Your task to perform on an android device: Open Google Chrome and open the bookmarks view Image 0: 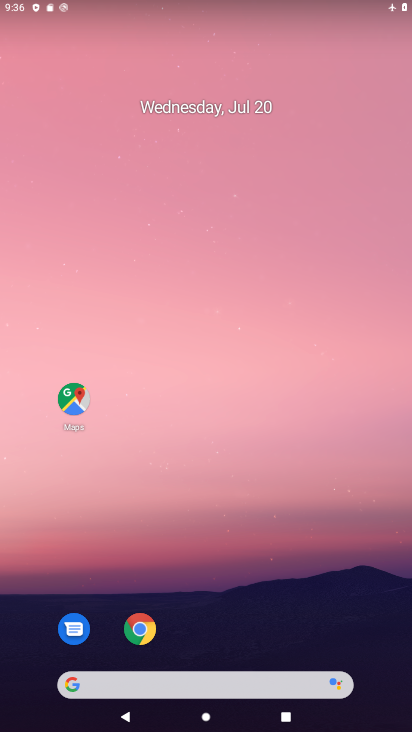
Step 0: drag from (340, 420) to (321, 95)
Your task to perform on an android device: Open Google Chrome and open the bookmarks view Image 1: 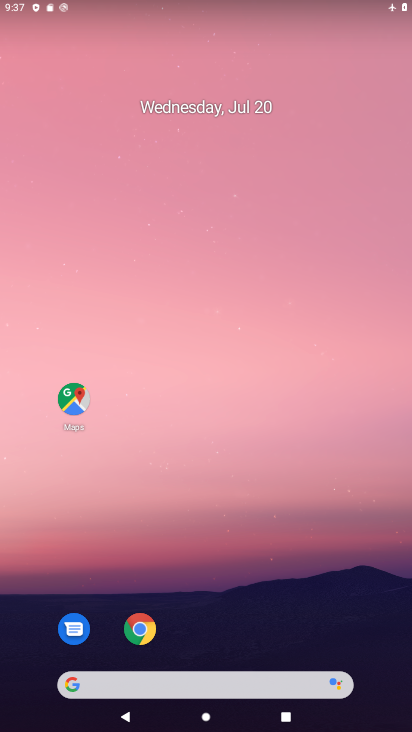
Step 1: drag from (276, 532) to (238, 6)
Your task to perform on an android device: Open Google Chrome and open the bookmarks view Image 2: 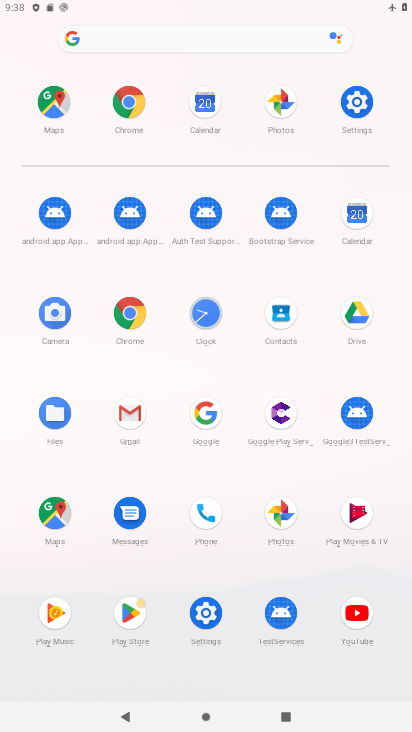
Step 2: click (122, 105)
Your task to perform on an android device: Open Google Chrome and open the bookmarks view Image 3: 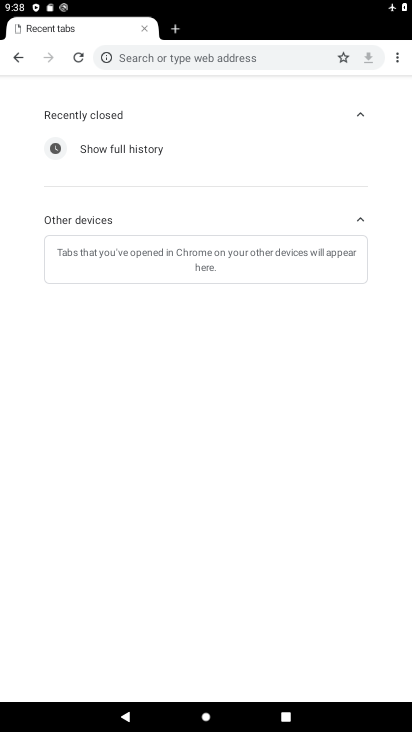
Step 3: task complete